Your task to perform on an android device: all mails in gmail Image 0: 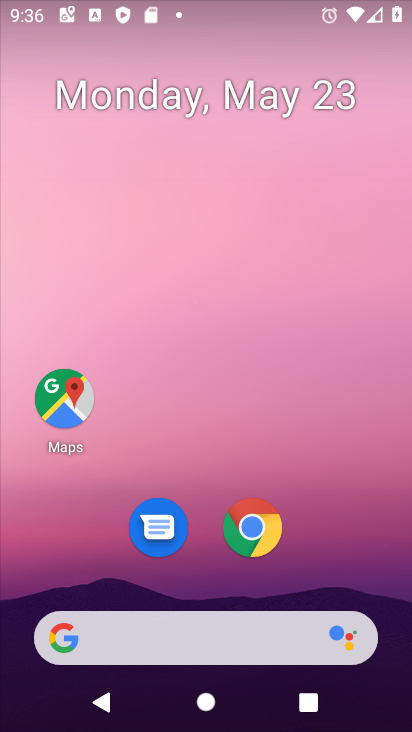
Step 0: drag from (326, 437) to (286, 0)
Your task to perform on an android device: all mails in gmail Image 1: 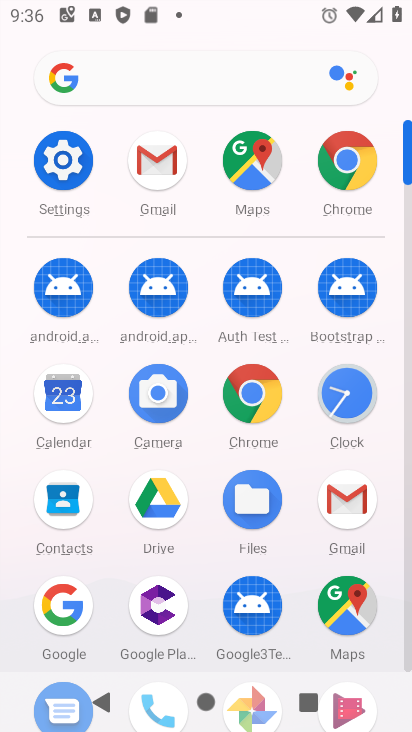
Step 1: click (344, 492)
Your task to perform on an android device: all mails in gmail Image 2: 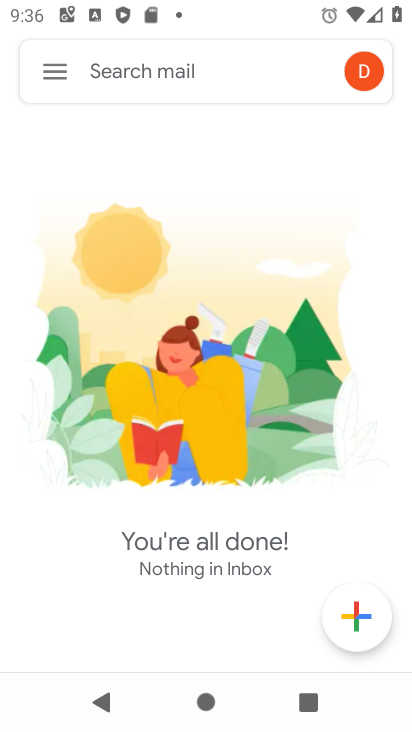
Step 2: click (37, 53)
Your task to perform on an android device: all mails in gmail Image 3: 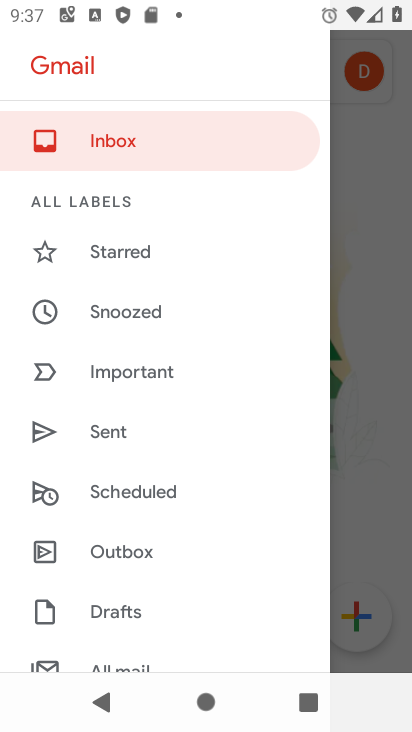
Step 3: drag from (141, 610) to (179, 166)
Your task to perform on an android device: all mails in gmail Image 4: 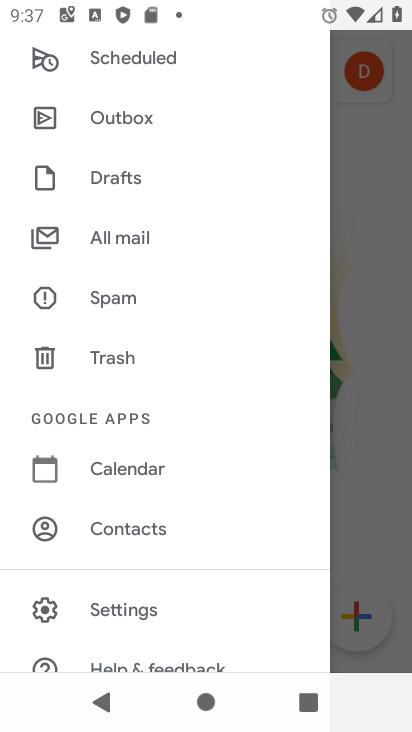
Step 4: click (156, 241)
Your task to perform on an android device: all mails in gmail Image 5: 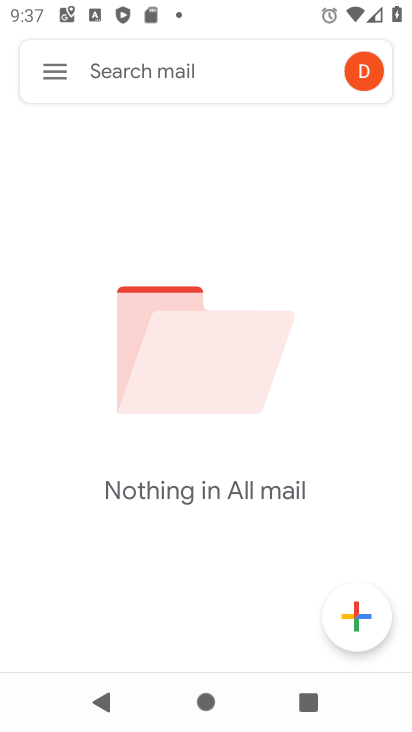
Step 5: task complete